Your task to perform on an android device: change keyboard looks Image 0: 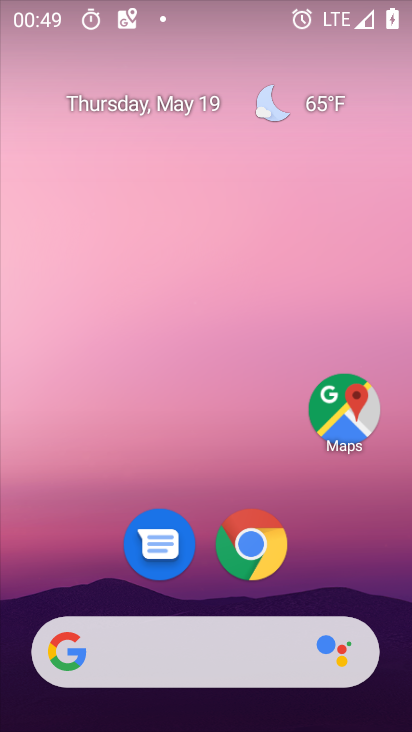
Step 0: drag from (355, 580) to (331, 110)
Your task to perform on an android device: change keyboard looks Image 1: 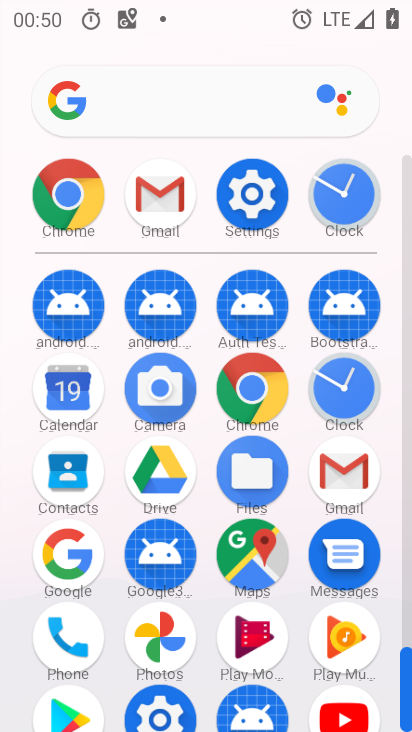
Step 1: click (246, 191)
Your task to perform on an android device: change keyboard looks Image 2: 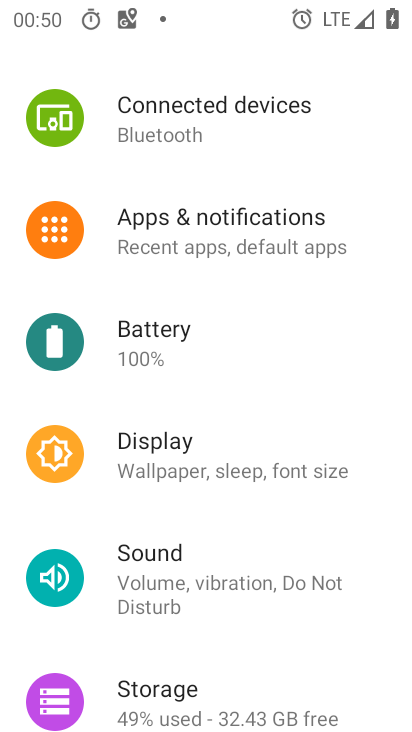
Step 2: drag from (366, 290) to (368, 535)
Your task to perform on an android device: change keyboard looks Image 3: 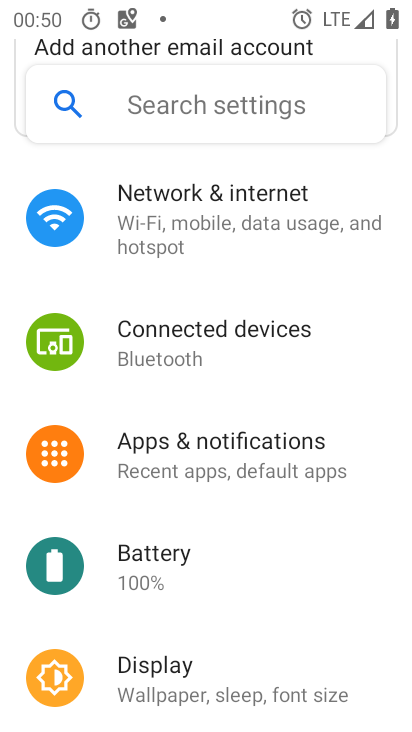
Step 3: drag from (361, 299) to (354, 535)
Your task to perform on an android device: change keyboard looks Image 4: 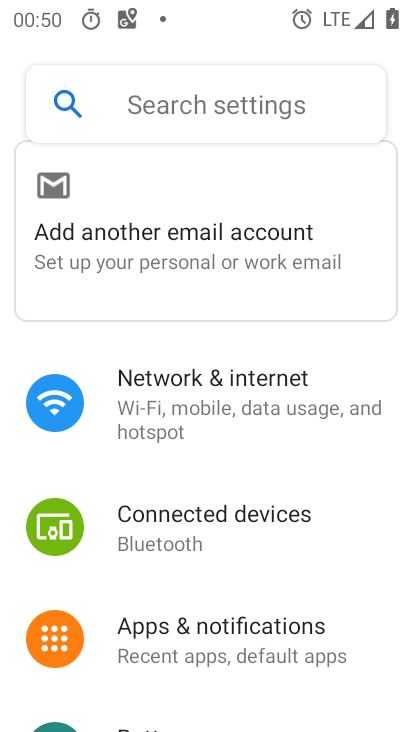
Step 4: drag from (361, 239) to (333, 468)
Your task to perform on an android device: change keyboard looks Image 5: 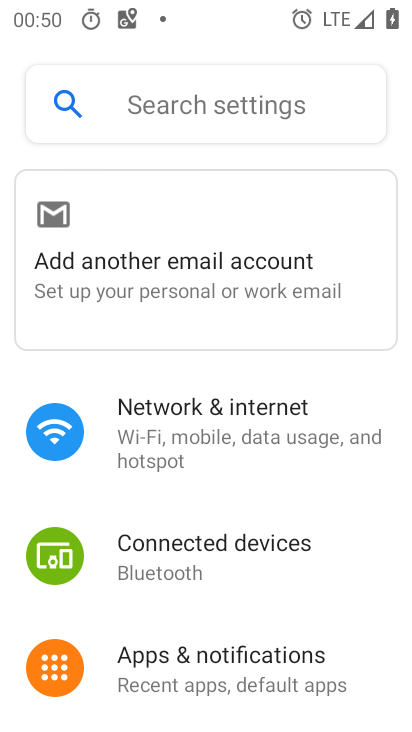
Step 5: drag from (342, 529) to (345, 303)
Your task to perform on an android device: change keyboard looks Image 6: 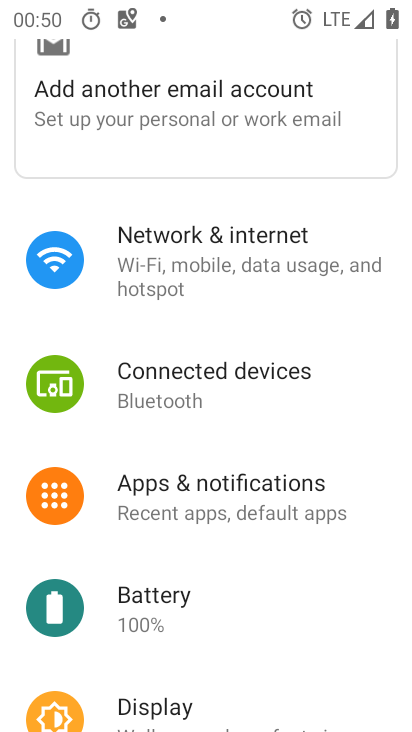
Step 6: drag from (345, 601) to (360, 351)
Your task to perform on an android device: change keyboard looks Image 7: 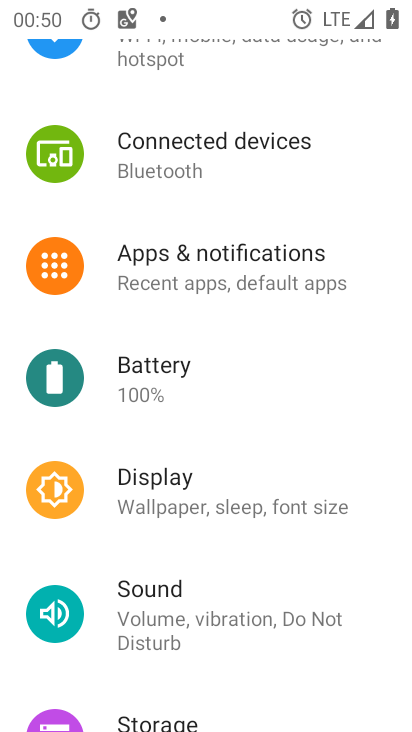
Step 7: drag from (332, 616) to (342, 421)
Your task to perform on an android device: change keyboard looks Image 8: 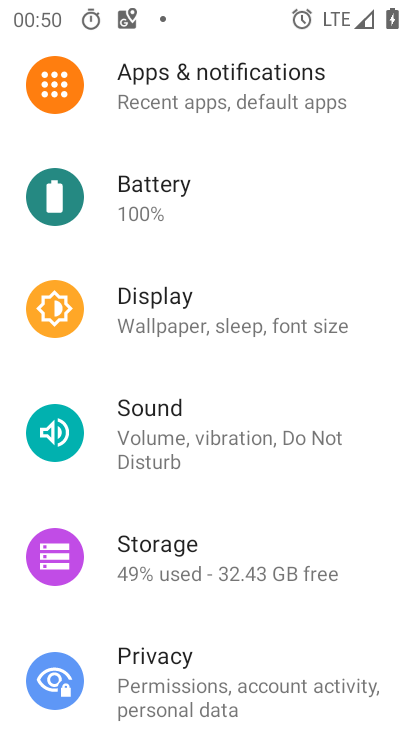
Step 8: drag from (344, 628) to (341, 456)
Your task to perform on an android device: change keyboard looks Image 9: 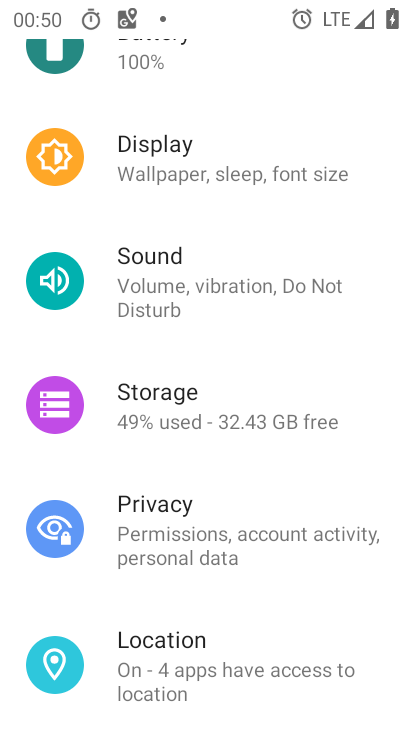
Step 9: drag from (330, 654) to (333, 439)
Your task to perform on an android device: change keyboard looks Image 10: 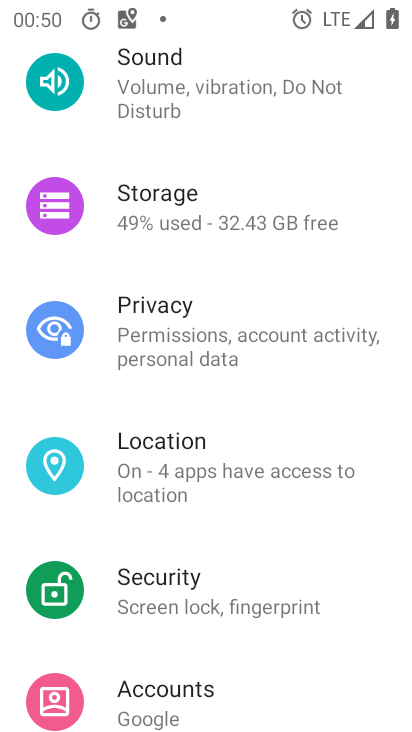
Step 10: drag from (325, 669) to (331, 430)
Your task to perform on an android device: change keyboard looks Image 11: 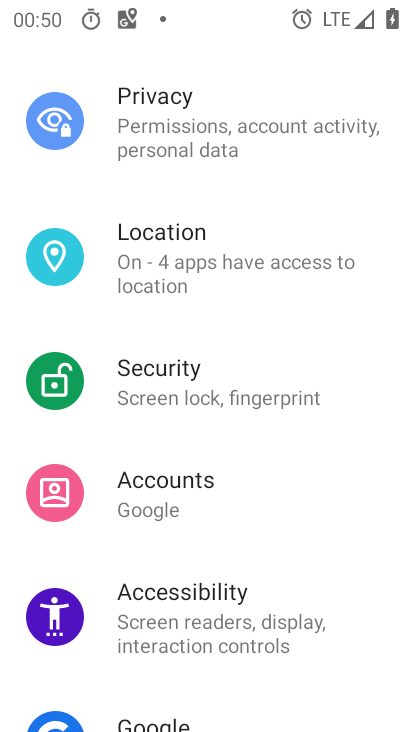
Step 11: drag from (348, 643) to (346, 452)
Your task to perform on an android device: change keyboard looks Image 12: 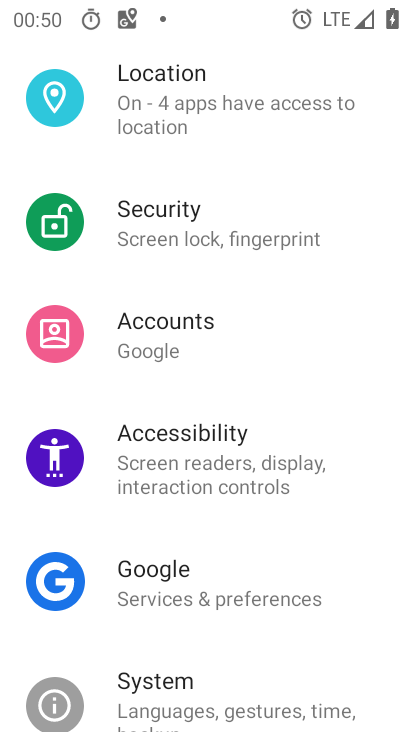
Step 12: drag from (335, 660) to (343, 479)
Your task to perform on an android device: change keyboard looks Image 13: 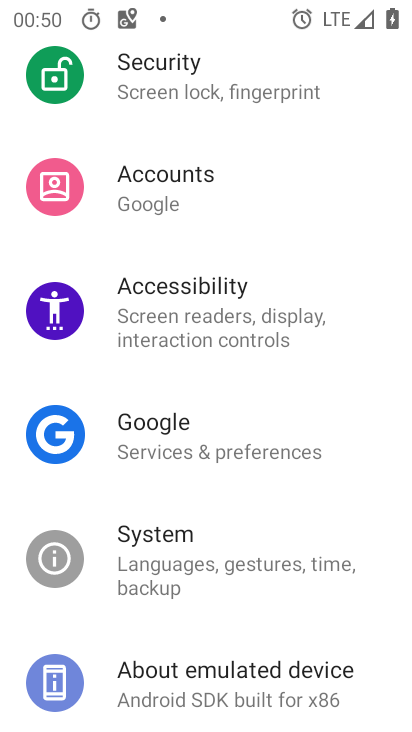
Step 13: drag from (305, 615) to (327, 410)
Your task to perform on an android device: change keyboard looks Image 14: 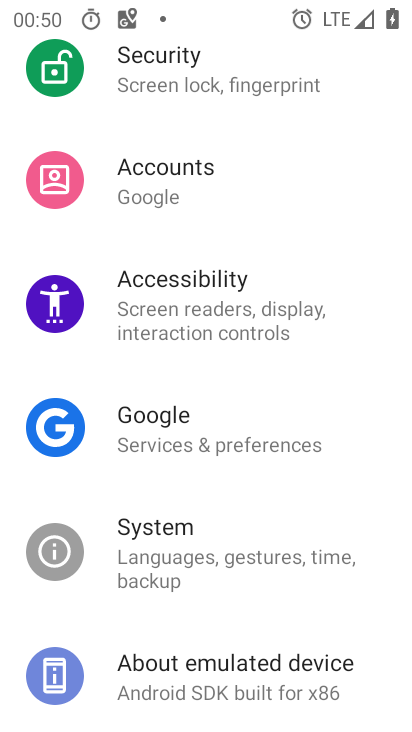
Step 14: click (252, 552)
Your task to perform on an android device: change keyboard looks Image 15: 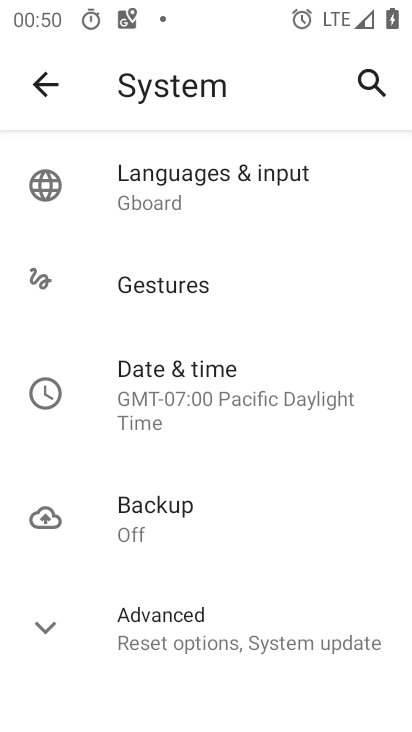
Step 15: click (186, 196)
Your task to perform on an android device: change keyboard looks Image 16: 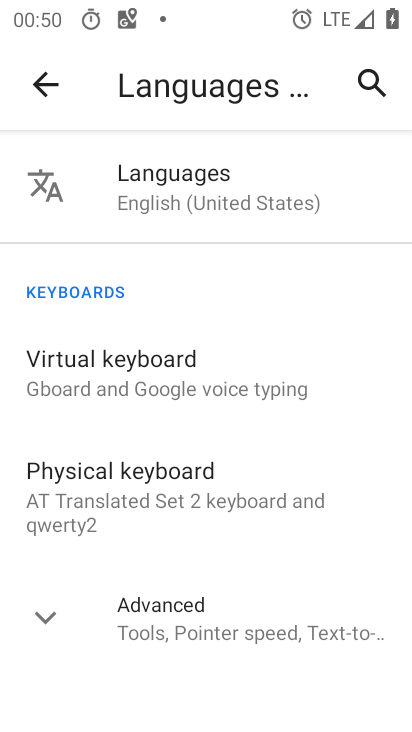
Step 16: click (167, 375)
Your task to perform on an android device: change keyboard looks Image 17: 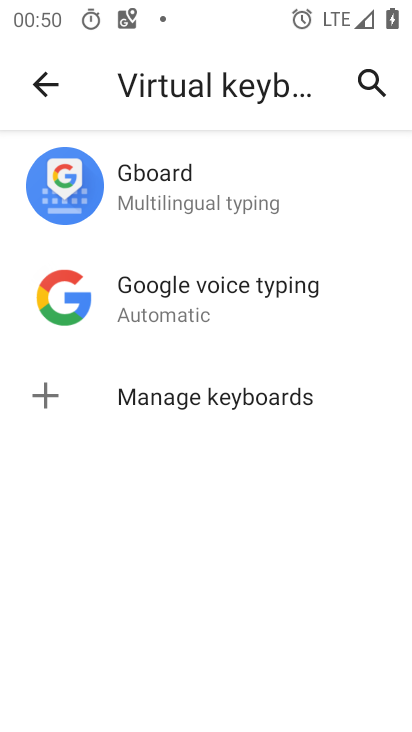
Step 17: click (191, 180)
Your task to perform on an android device: change keyboard looks Image 18: 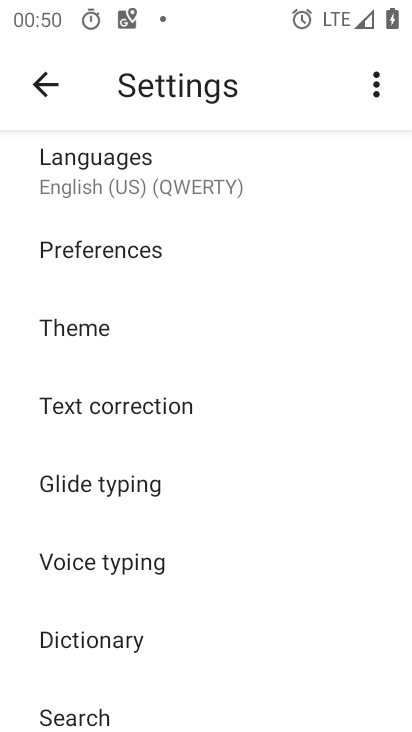
Step 18: click (104, 321)
Your task to perform on an android device: change keyboard looks Image 19: 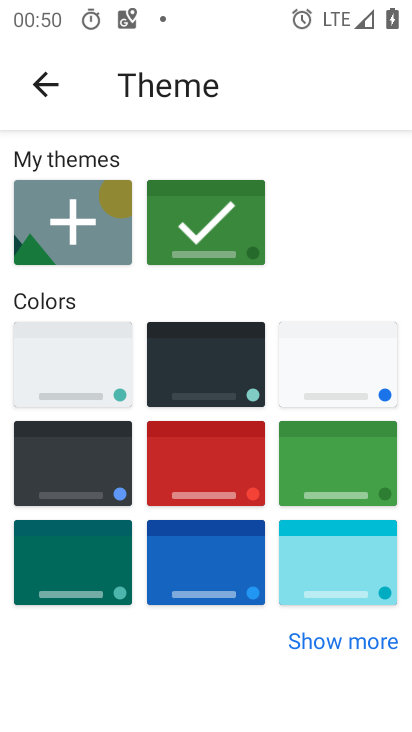
Step 19: click (194, 448)
Your task to perform on an android device: change keyboard looks Image 20: 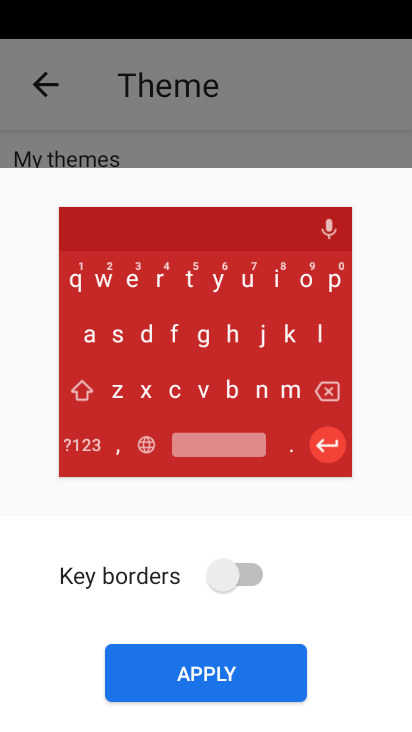
Step 20: click (233, 671)
Your task to perform on an android device: change keyboard looks Image 21: 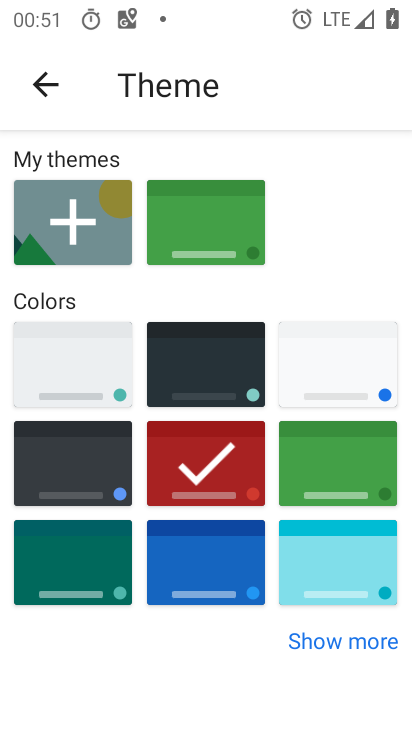
Step 21: task complete